Your task to perform on an android device: Open Google Maps and go to "Timeline" Image 0: 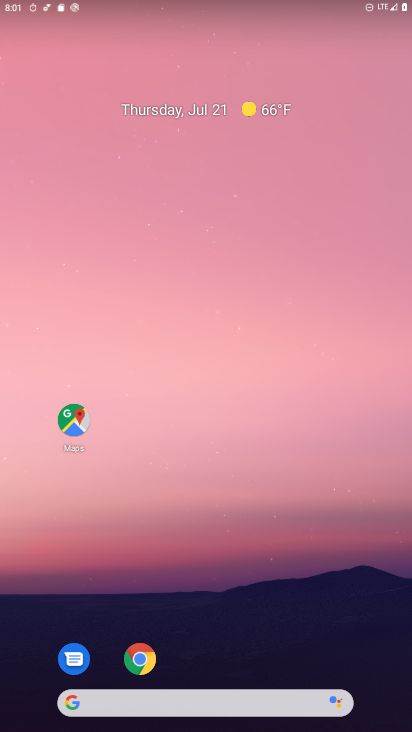
Step 0: drag from (192, 584) to (226, 9)
Your task to perform on an android device: Open Google Maps and go to "Timeline" Image 1: 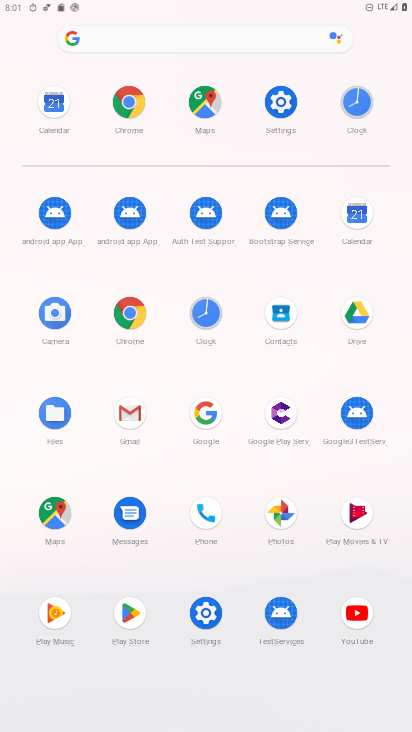
Step 1: click (202, 101)
Your task to perform on an android device: Open Google Maps and go to "Timeline" Image 2: 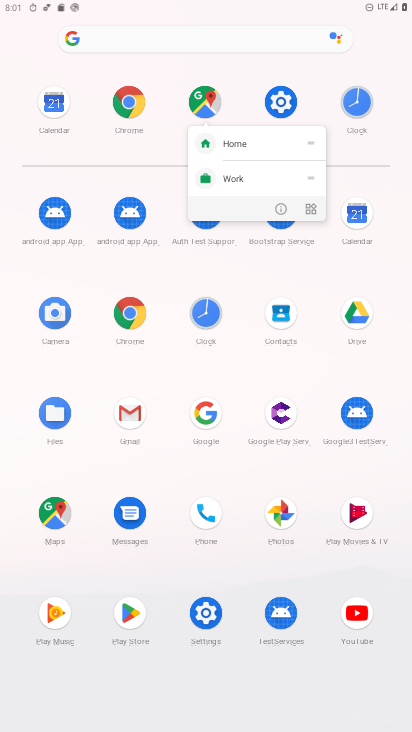
Step 2: click (278, 213)
Your task to perform on an android device: Open Google Maps and go to "Timeline" Image 3: 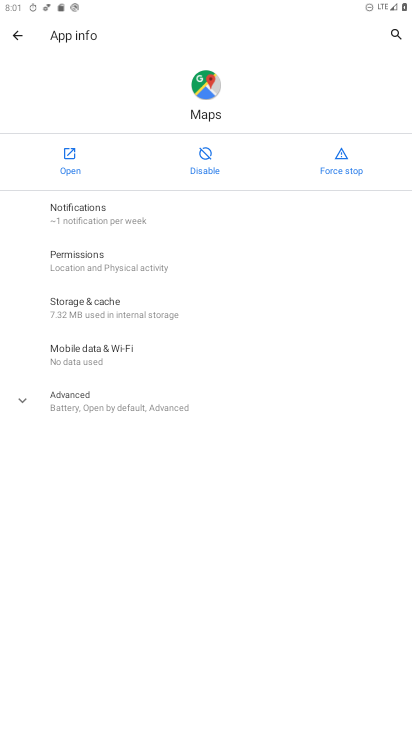
Step 3: click (68, 164)
Your task to perform on an android device: Open Google Maps and go to "Timeline" Image 4: 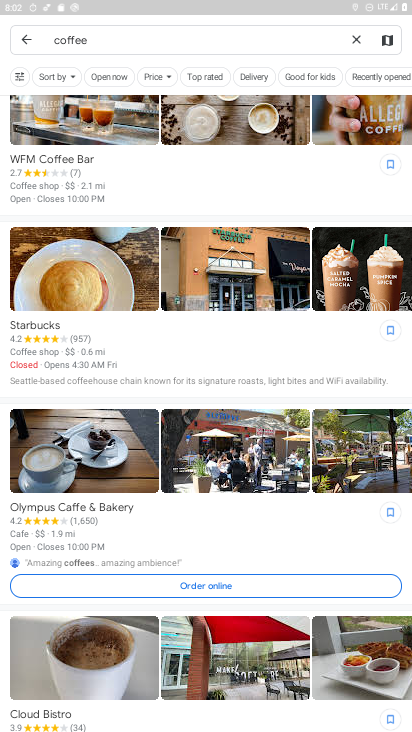
Step 4: click (17, 39)
Your task to perform on an android device: Open Google Maps and go to "Timeline" Image 5: 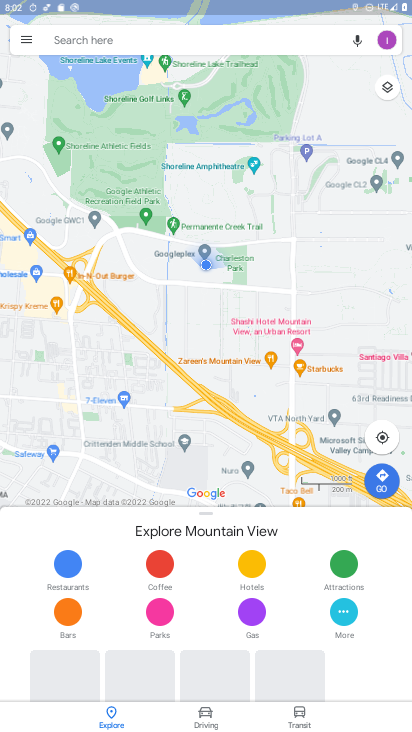
Step 5: click (29, 38)
Your task to perform on an android device: Open Google Maps and go to "Timeline" Image 6: 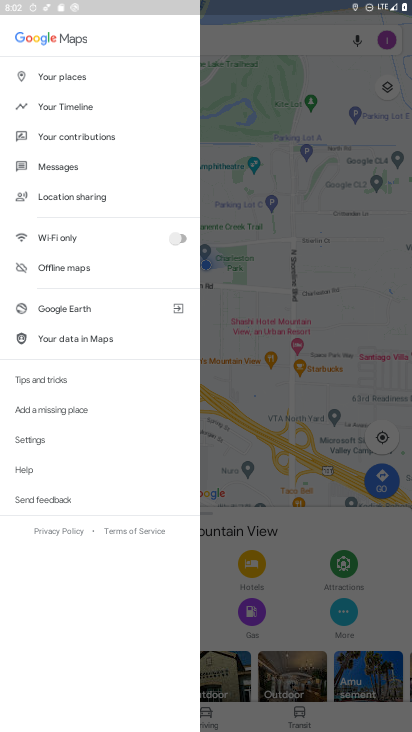
Step 6: click (60, 106)
Your task to perform on an android device: Open Google Maps and go to "Timeline" Image 7: 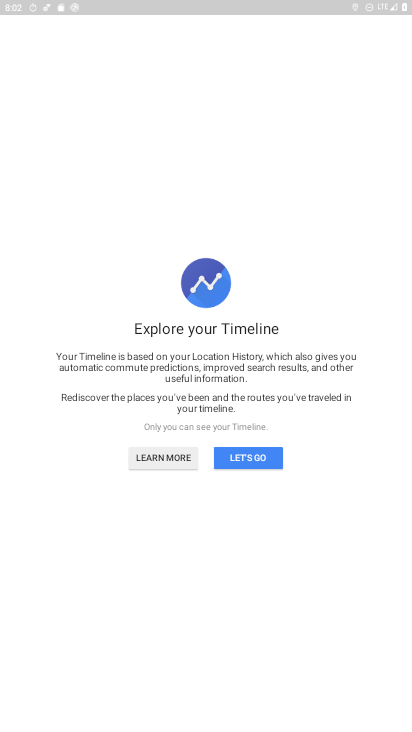
Step 7: drag from (224, 478) to (248, 266)
Your task to perform on an android device: Open Google Maps and go to "Timeline" Image 8: 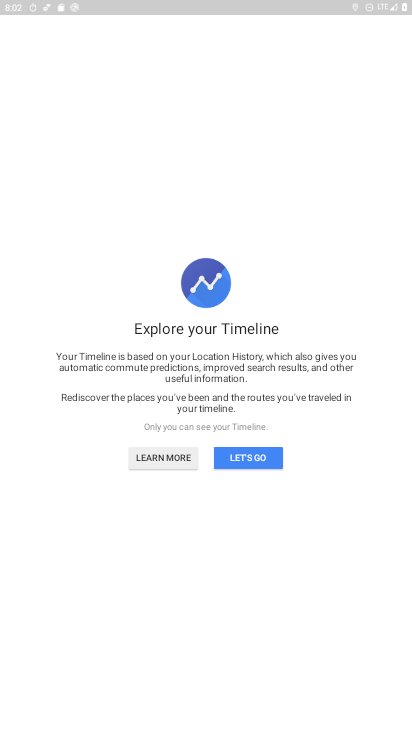
Step 8: click (245, 457)
Your task to perform on an android device: Open Google Maps and go to "Timeline" Image 9: 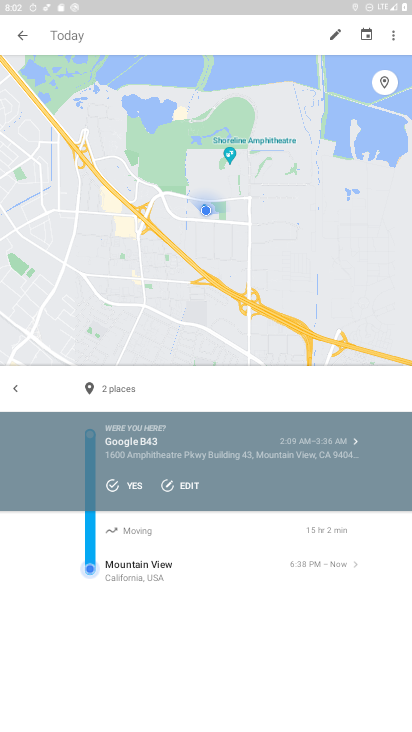
Step 9: task complete